Your task to perform on an android device: Do I have any events today? Image 0: 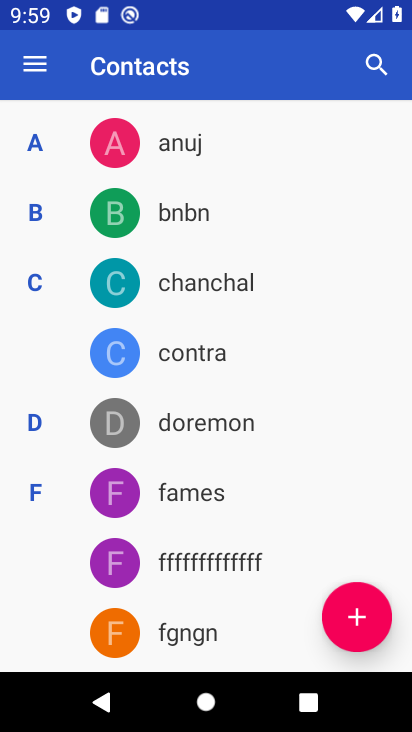
Step 0: press home button
Your task to perform on an android device: Do I have any events today? Image 1: 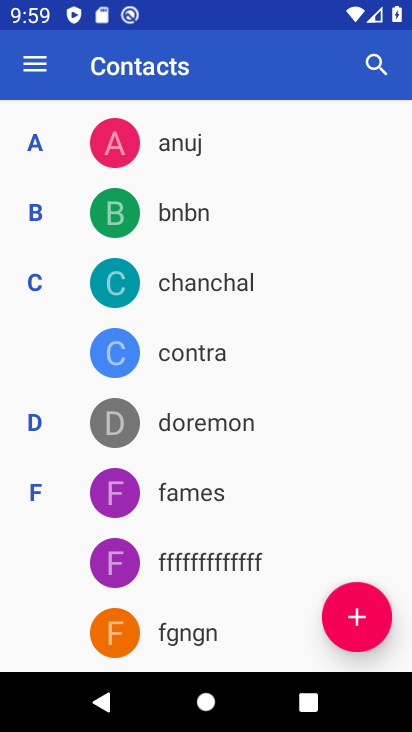
Step 1: press home button
Your task to perform on an android device: Do I have any events today? Image 2: 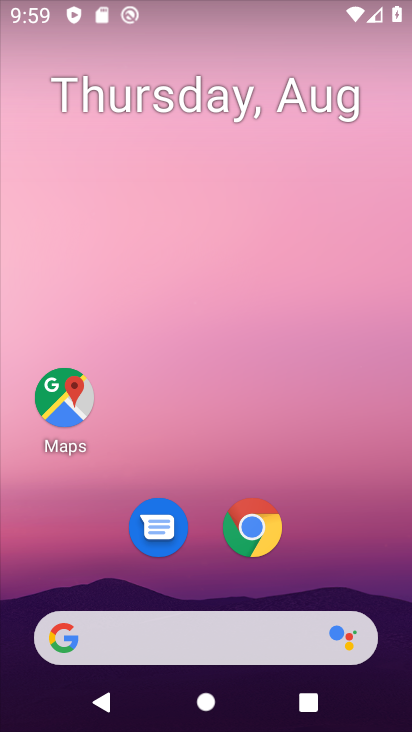
Step 2: drag from (276, 699) to (291, 67)
Your task to perform on an android device: Do I have any events today? Image 3: 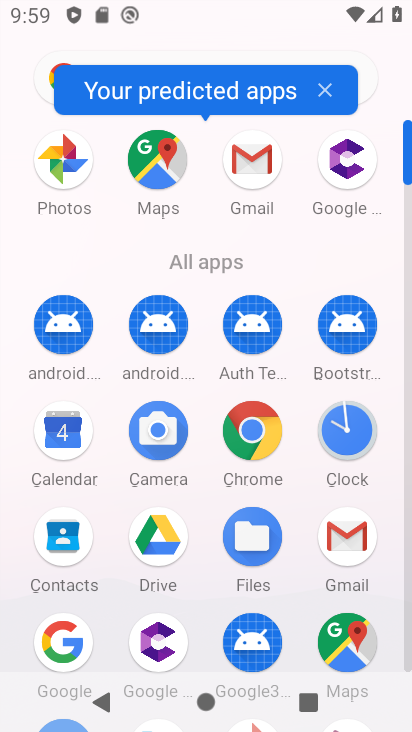
Step 3: click (52, 429)
Your task to perform on an android device: Do I have any events today? Image 4: 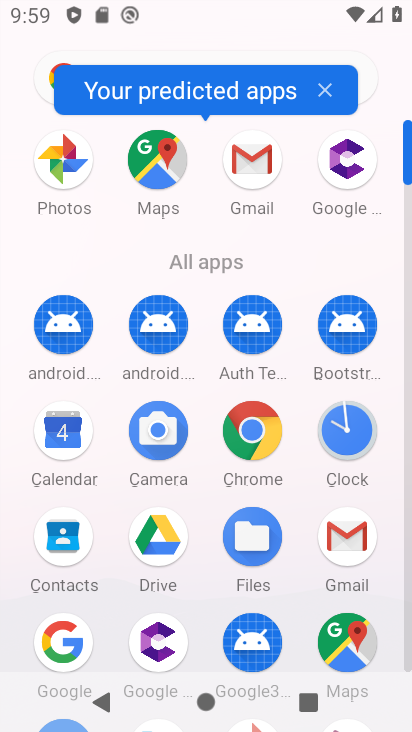
Step 4: click (52, 429)
Your task to perform on an android device: Do I have any events today? Image 5: 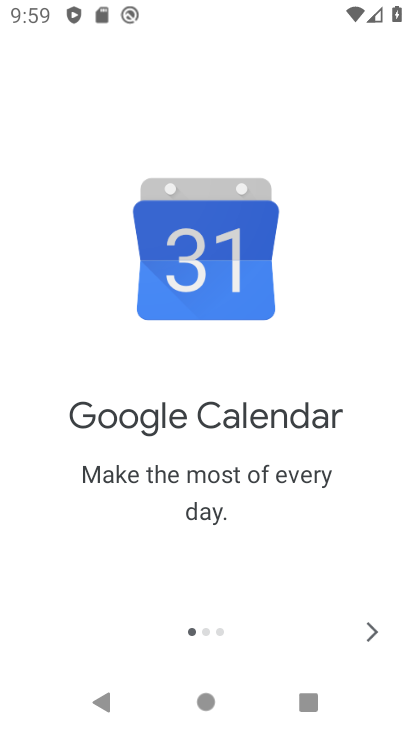
Step 5: click (371, 637)
Your task to perform on an android device: Do I have any events today? Image 6: 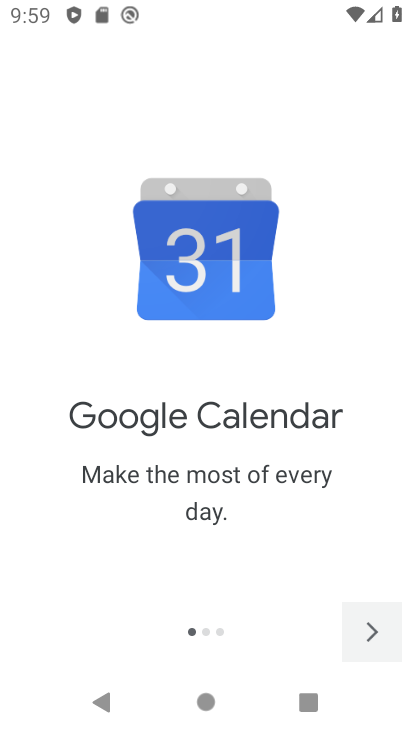
Step 6: click (371, 637)
Your task to perform on an android device: Do I have any events today? Image 7: 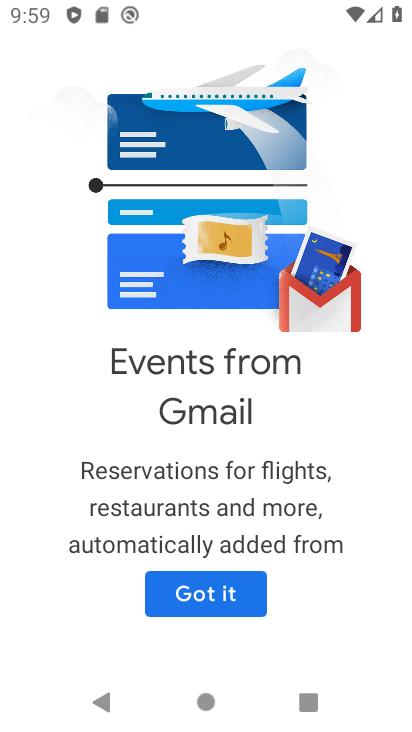
Step 7: click (199, 600)
Your task to perform on an android device: Do I have any events today? Image 8: 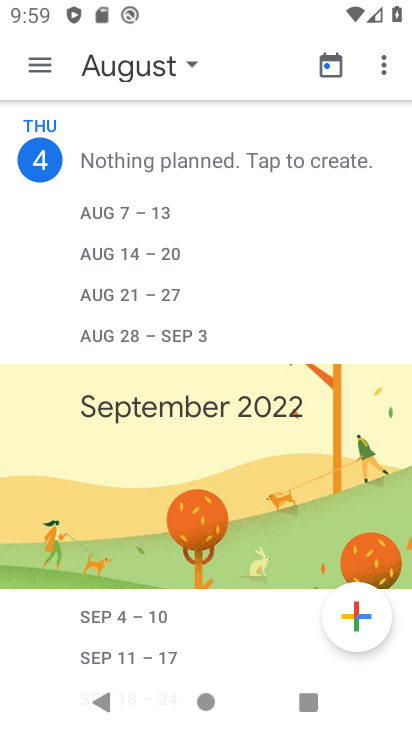
Step 8: task complete